Your task to perform on an android device: toggle priority inbox in the gmail app Image 0: 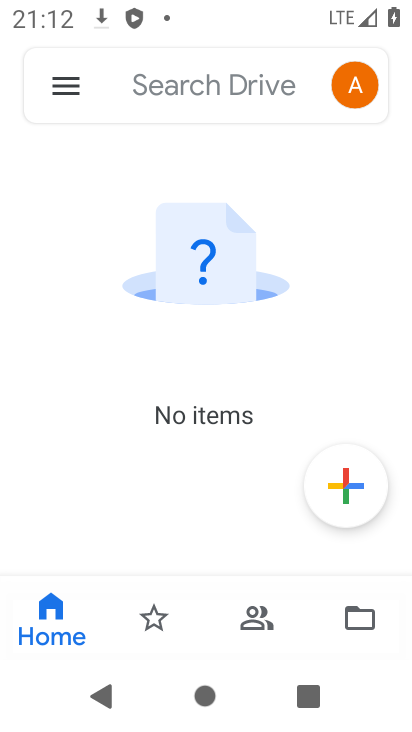
Step 0: press back button
Your task to perform on an android device: toggle priority inbox in the gmail app Image 1: 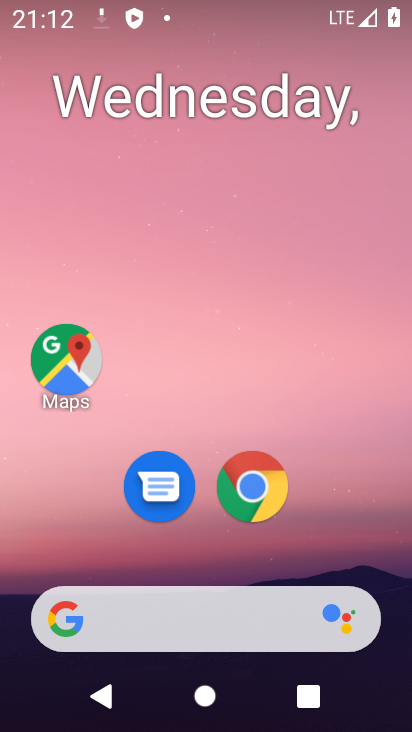
Step 1: drag from (198, 504) to (205, 28)
Your task to perform on an android device: toggle priority inbox in the gmail app Image 2: 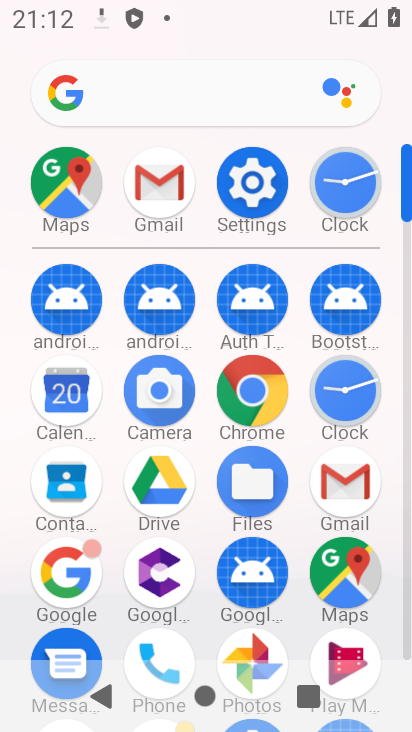
Step 2: click (170, 187)
Your task to perform on an android device: toggle priority inbox in the gmail app Image 3: 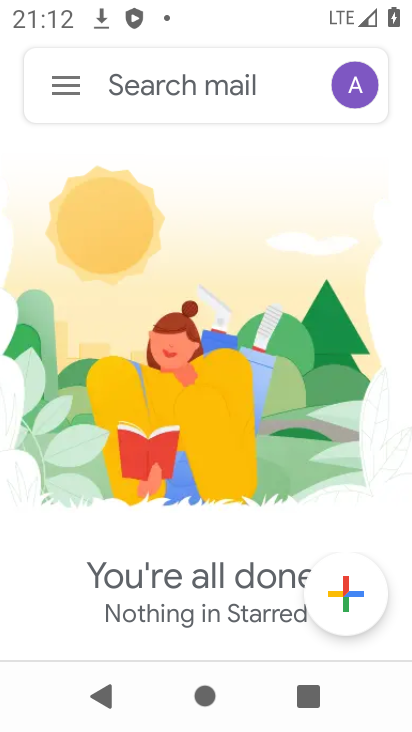
Step 3: click (66, 78)
Your task to perform on an android device: toggle priority inbox in the gmail app Image 4: 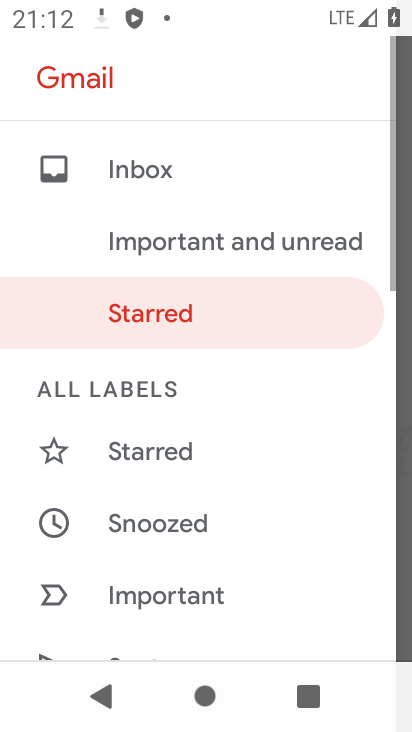
Step 4: drag from (160, 578) to (216, 3)
Your task to perform on an android device: toggle priority inbox in the gmail app Image 5: 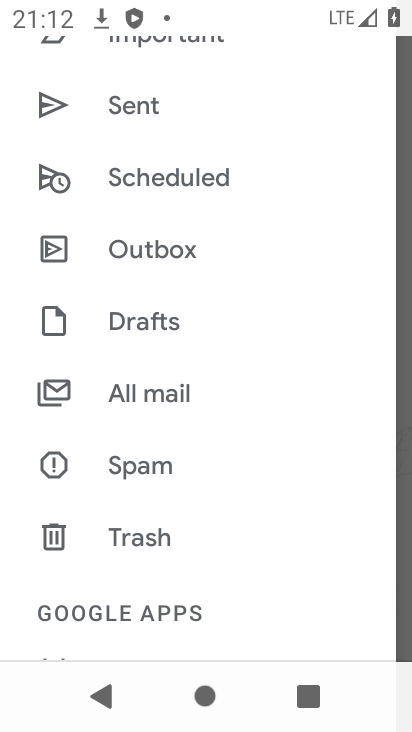
Step 5: drag from (123, 601) to (169, 47)
Your task to perform on an android device: toggle priority inbox in the gmail app Image 6: 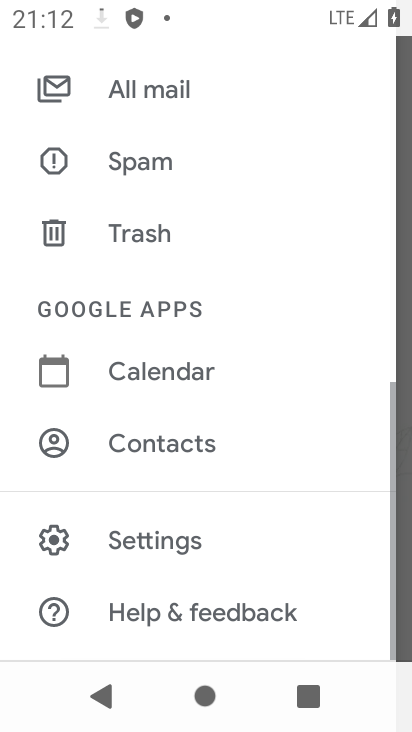
Step 6: click (191, 528)
Your task to perform on an android device: toggle priority inbox in the gmail app Image 7: 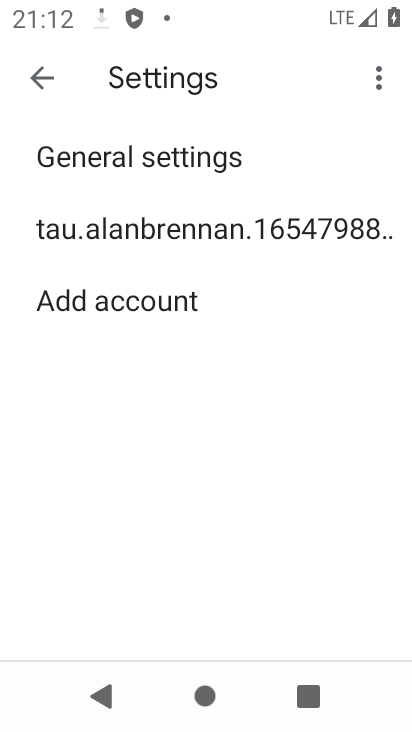
Step 7: click (120, 218)
Your task to perform on an android device: toggle priority inbox in the gmail app Image 8: 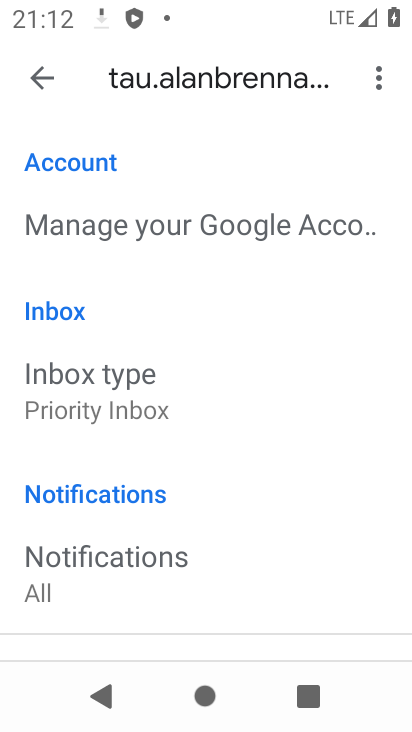
Step 8: click (113, 419)
Your task to perform on an android device: toggle priority inbox in the gmail app Image 9: 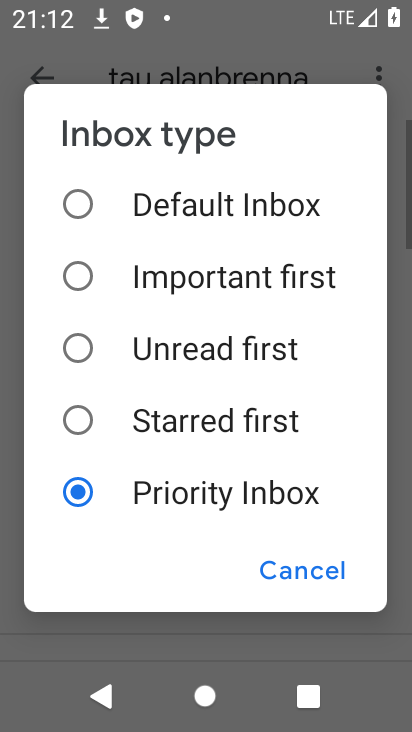
Step 9: click (186, 516)
Your task to perform on an android device: toggle priority inbox in the gmail app Image 10: 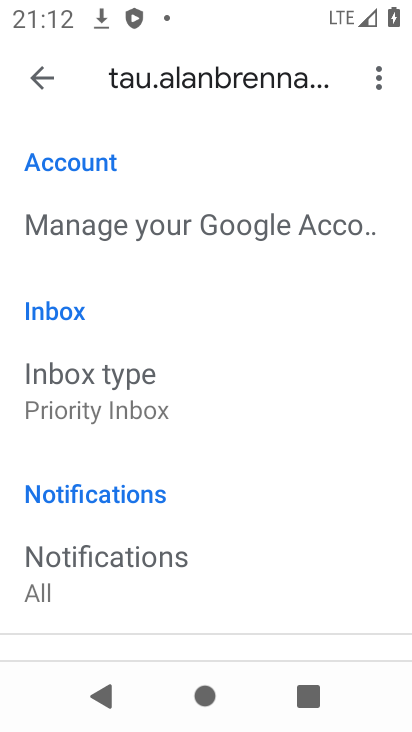
Step 10: task complete